Your task to perform on an android device: change the upload size in google photos Image 0: 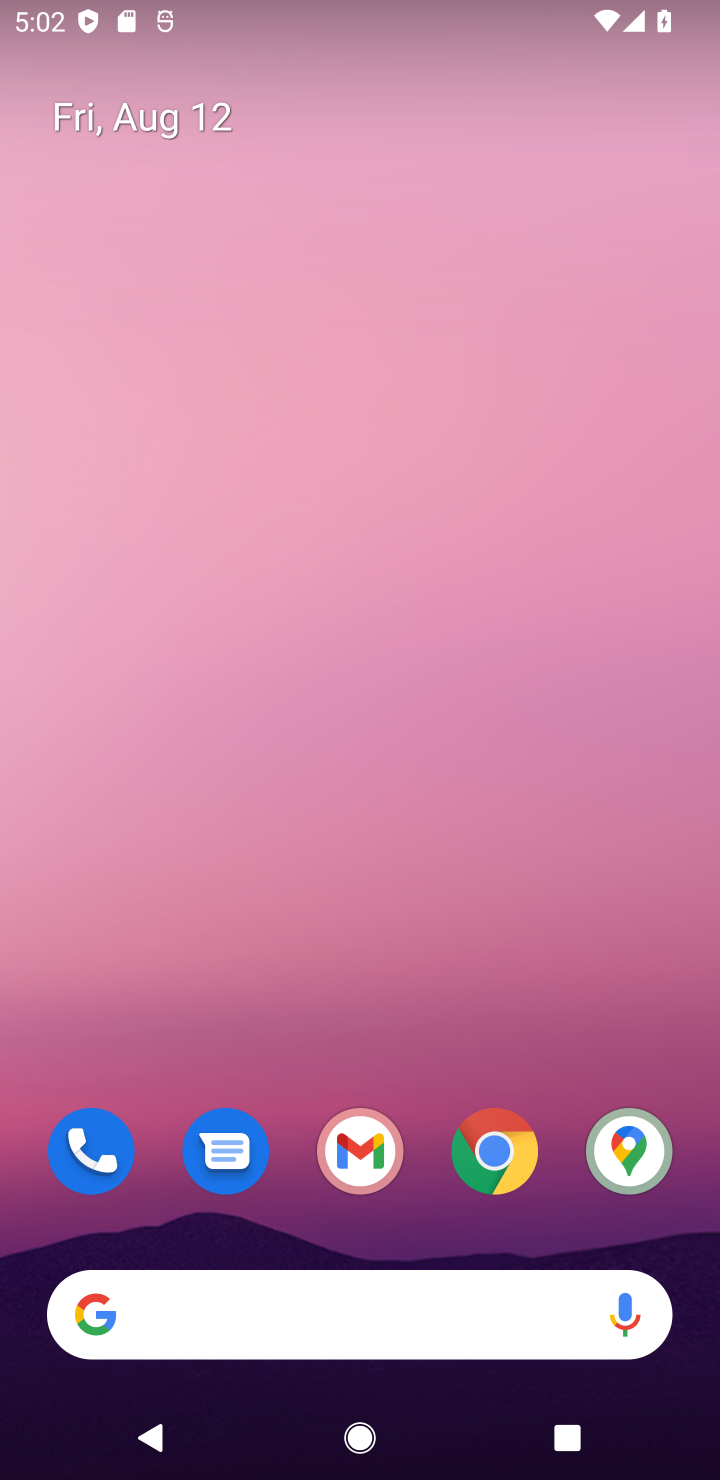
Step 0: drag from (439, 756) to (426, 223)
Your task to perform on an android device: change the upload size in google photos Image 1: 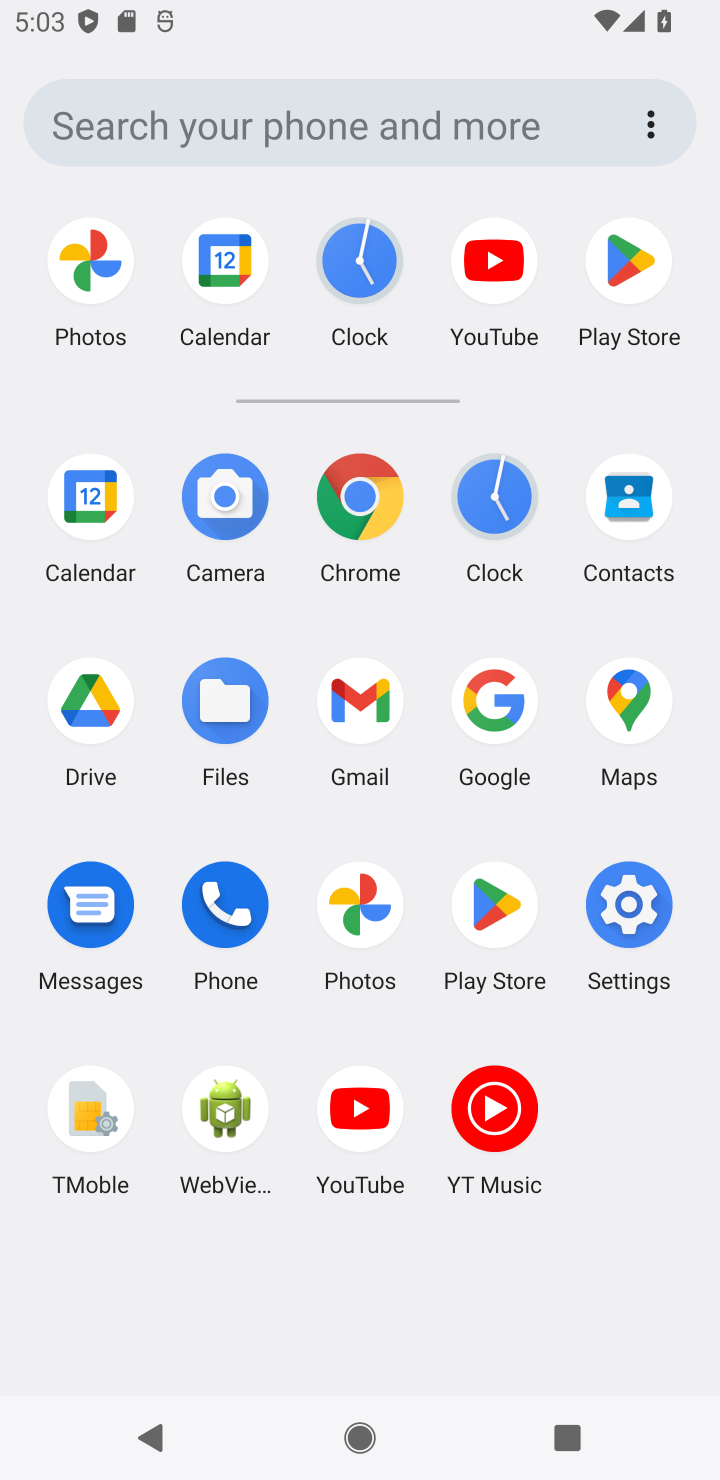
Step 1: click (368, 897)
Your task to perform on an android device: change the upload size in google photos Image 2: 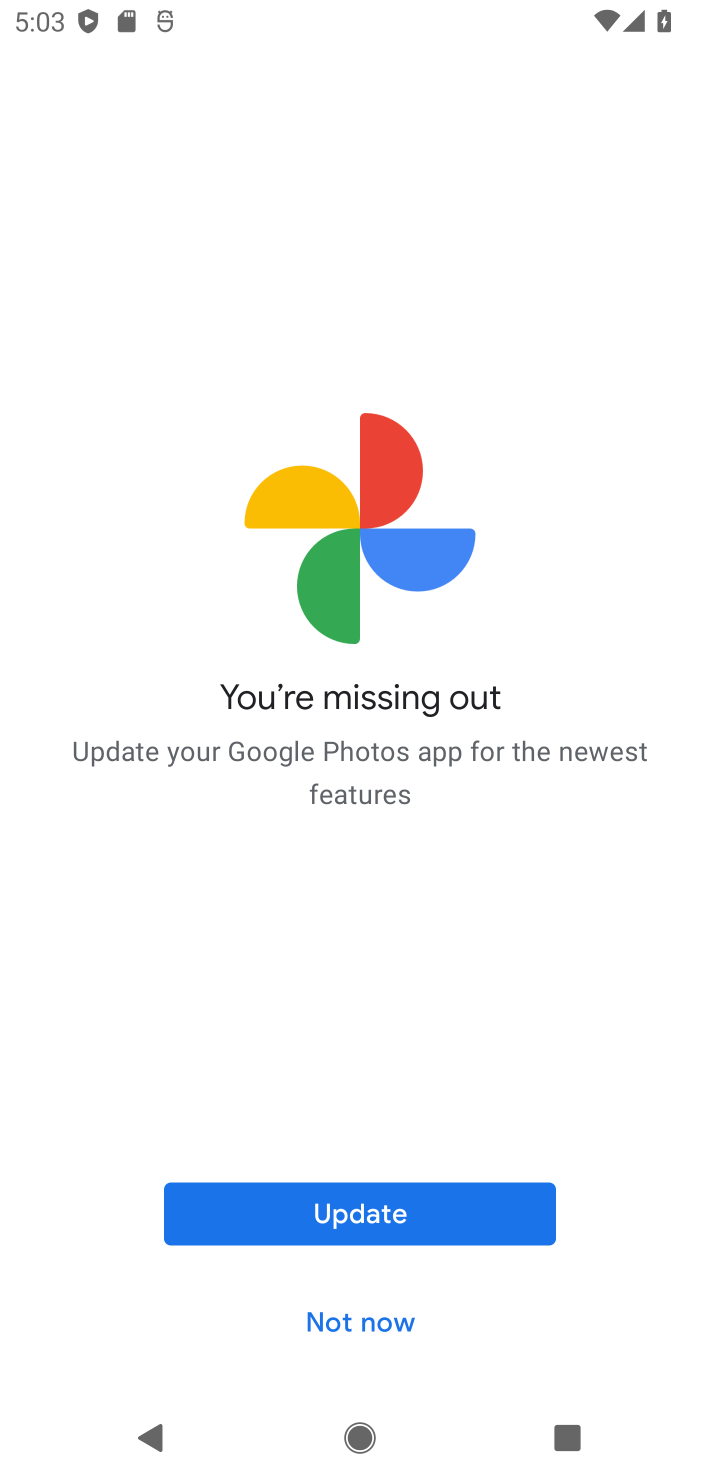
Step 2: click (364, 1327)
Your task to perform on an android device: change the upload size in google photos Image 3: 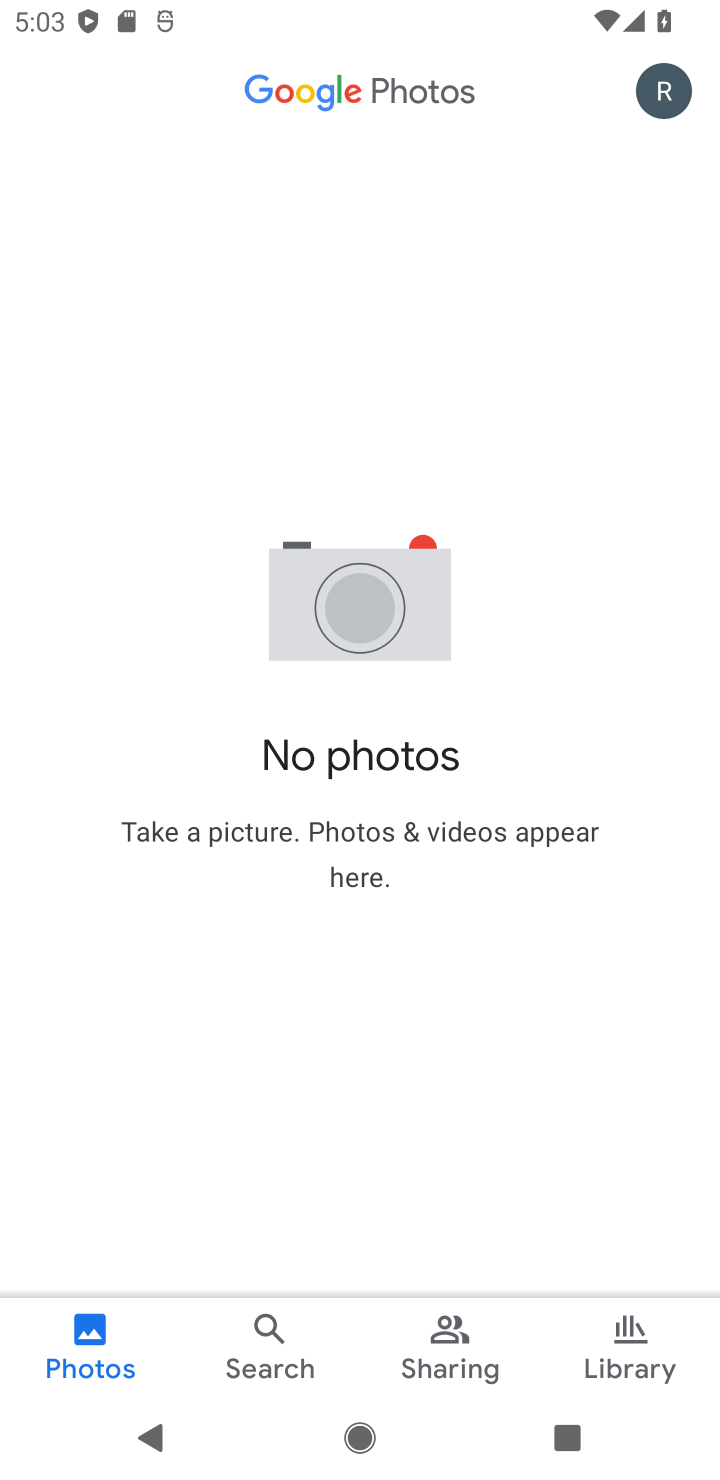
Step 3: click (673, 100)
Your task to perform on an android device: change the upload size in google photos Image 4: 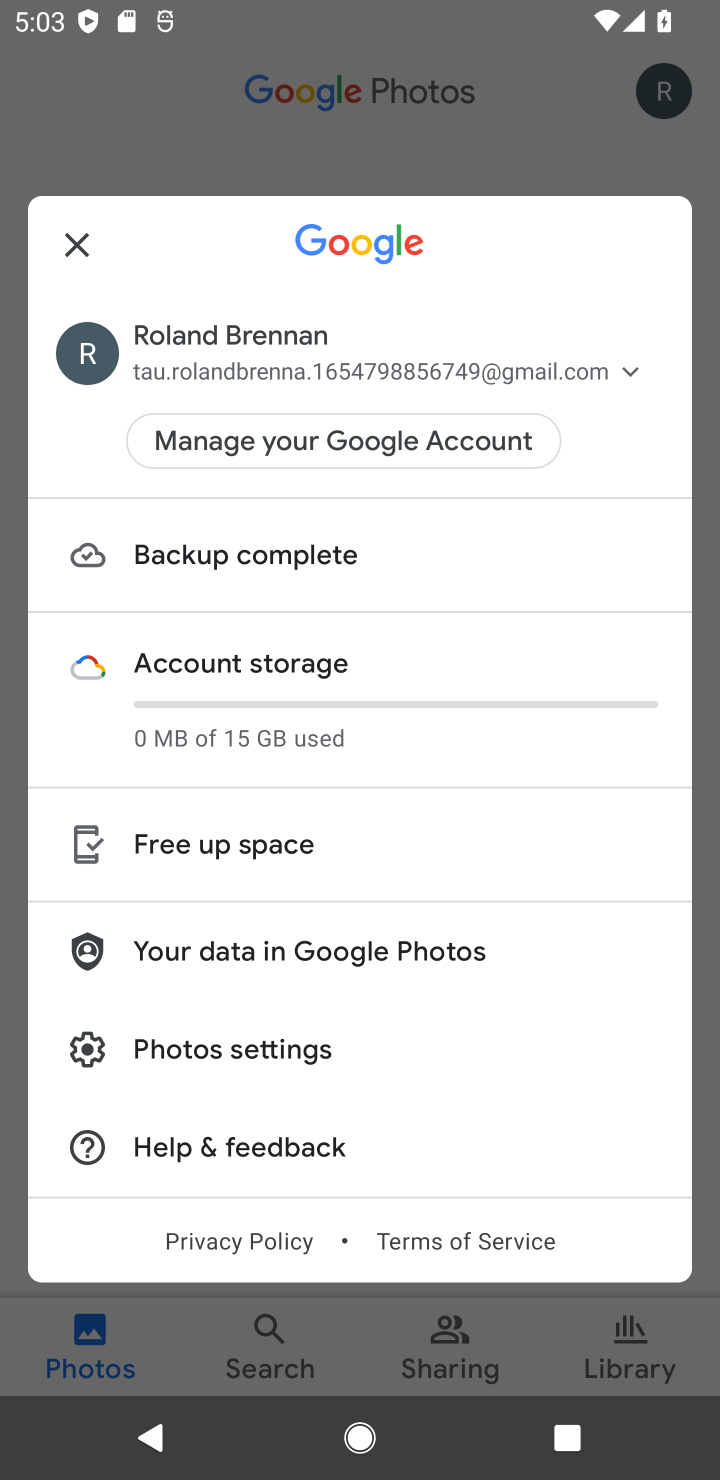
Step 4: click (296, 1064)
Your task to perform on an android device: change the upload size in google photos Image 5: 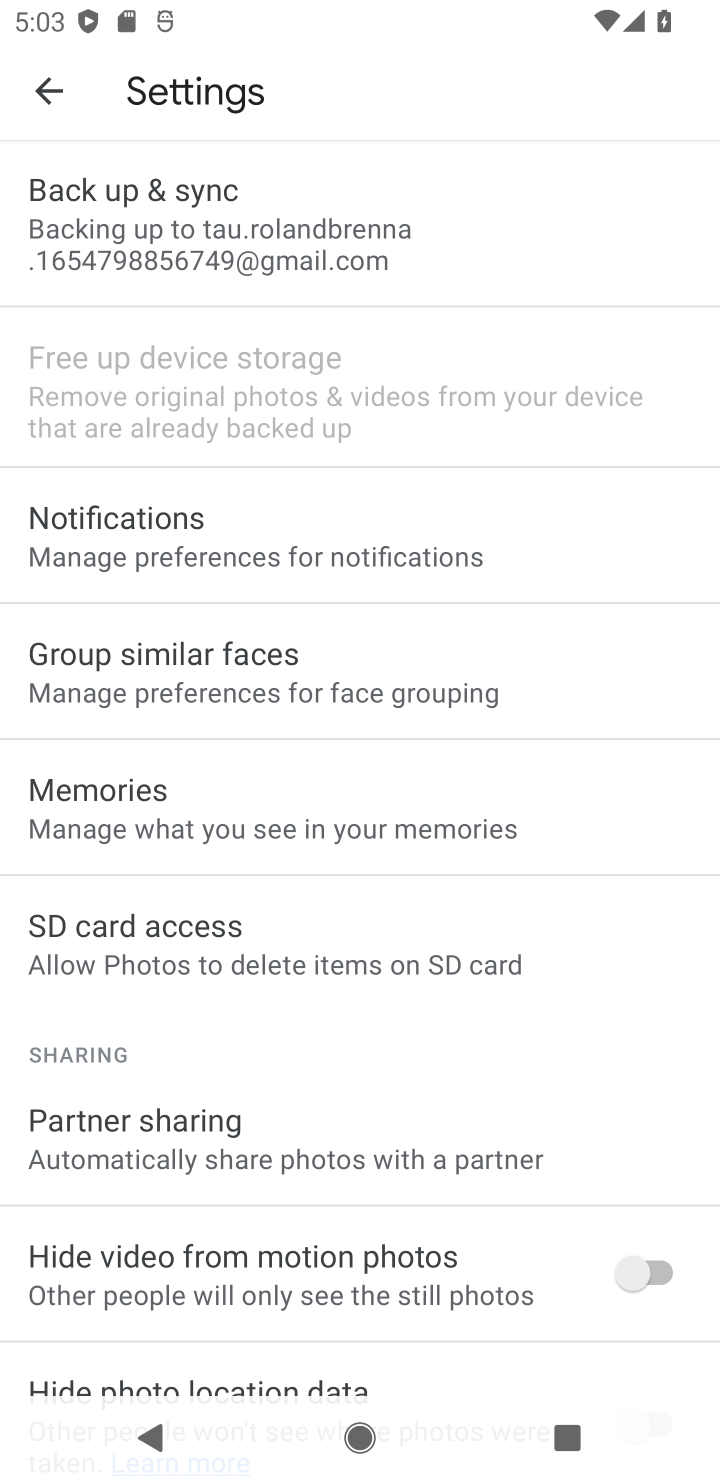
Step 5: click (273, 229)
Your task to perform on an android device: change the upload size in google photos Image 6: 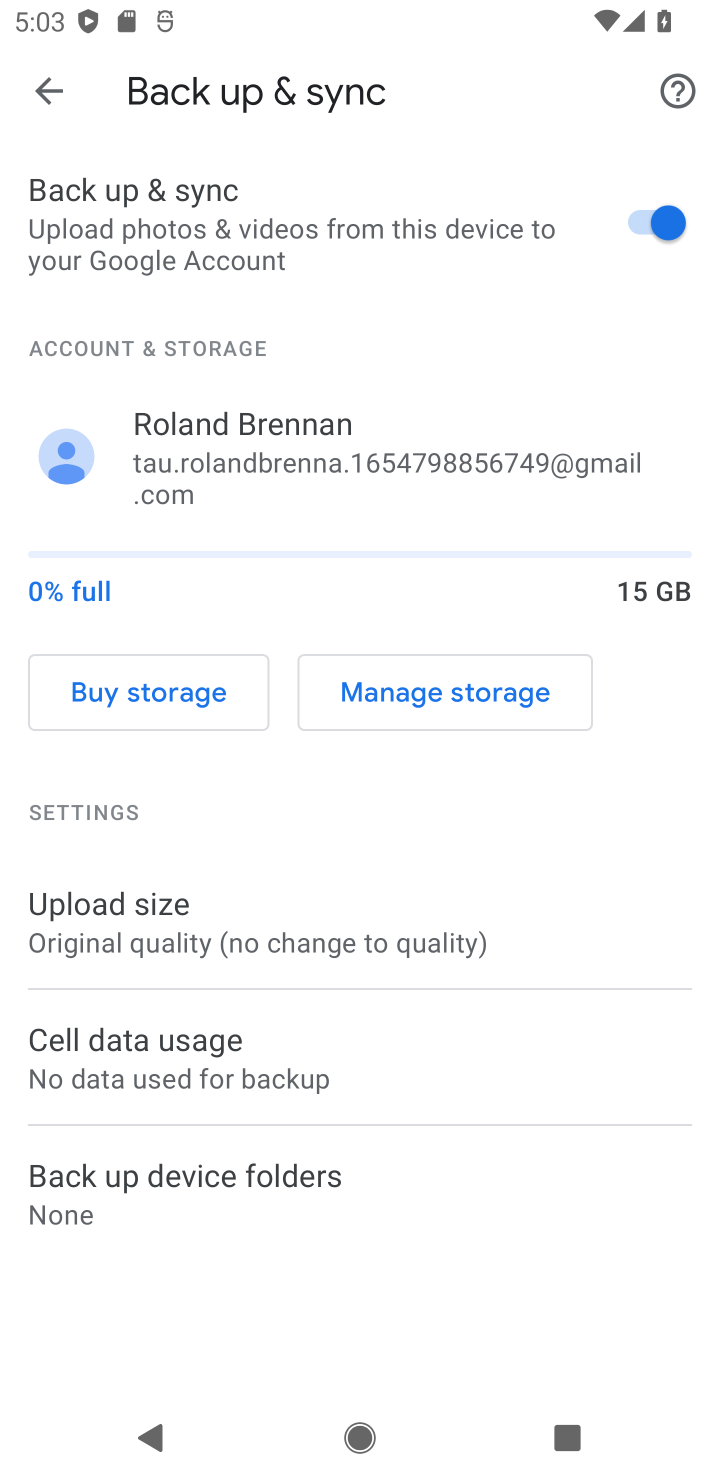
Step 6: click (274, 935)
Your task to perform on an android device: change the upload size in google photos Image 7: 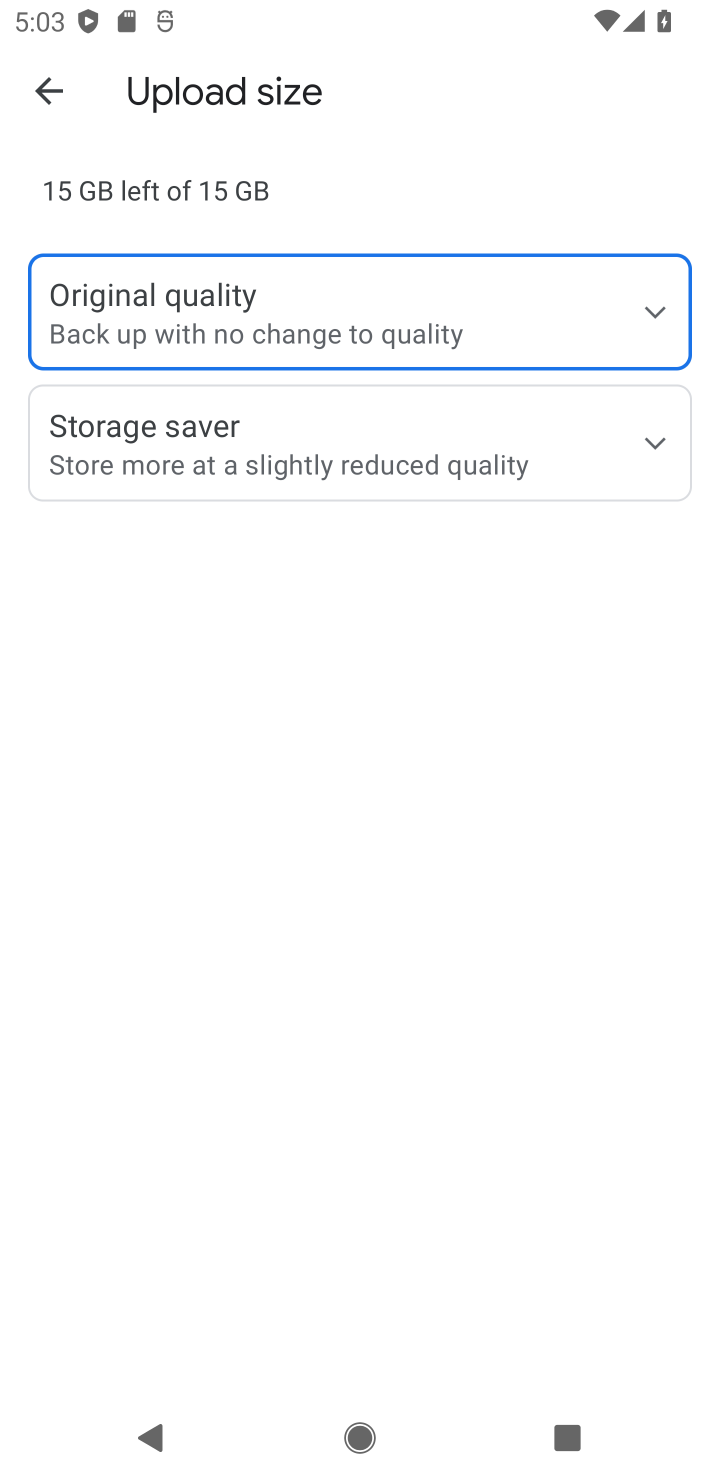
Step 7: click (330, 470)
Your task to perform on an android device: change the upload size in google photos Image 8: 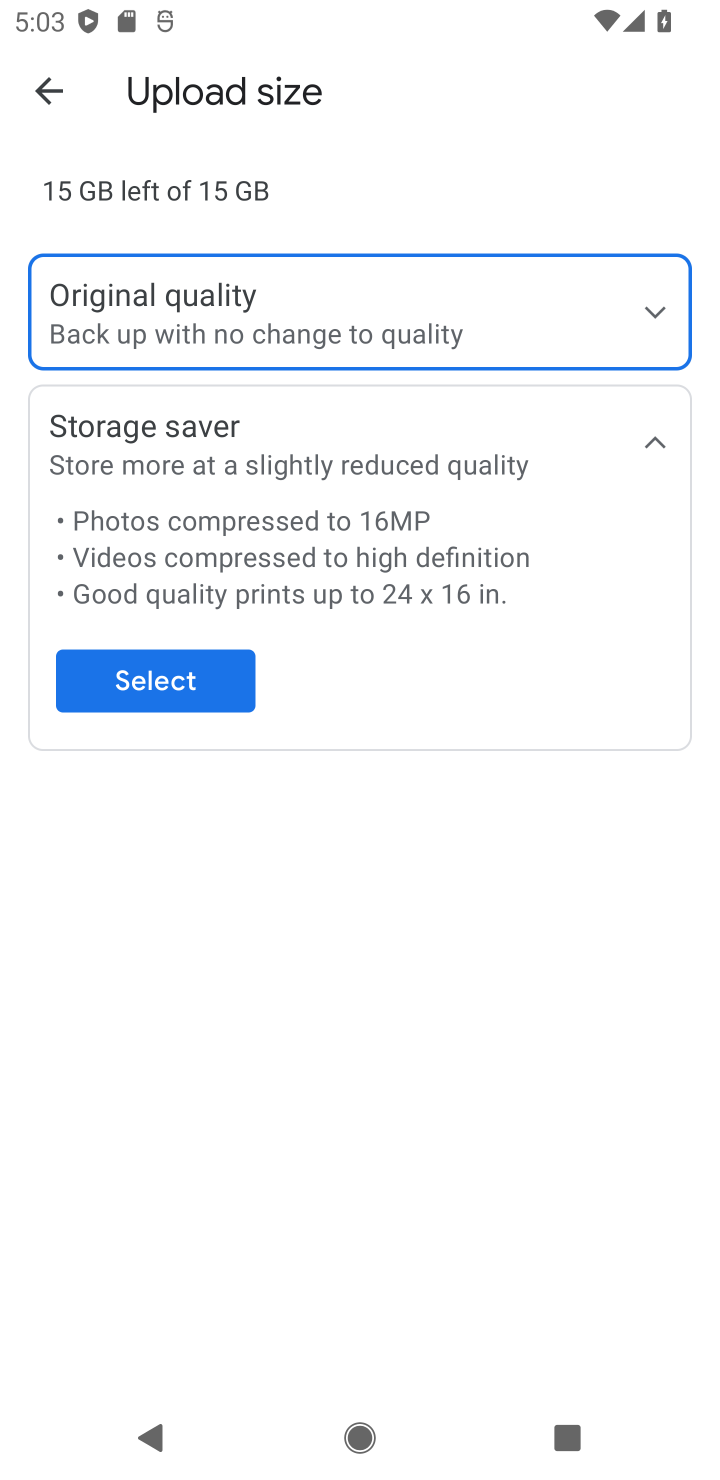
Step 8: click (177, 662)
Your task to perform on an android device: change the upload size in google photos Image 9: 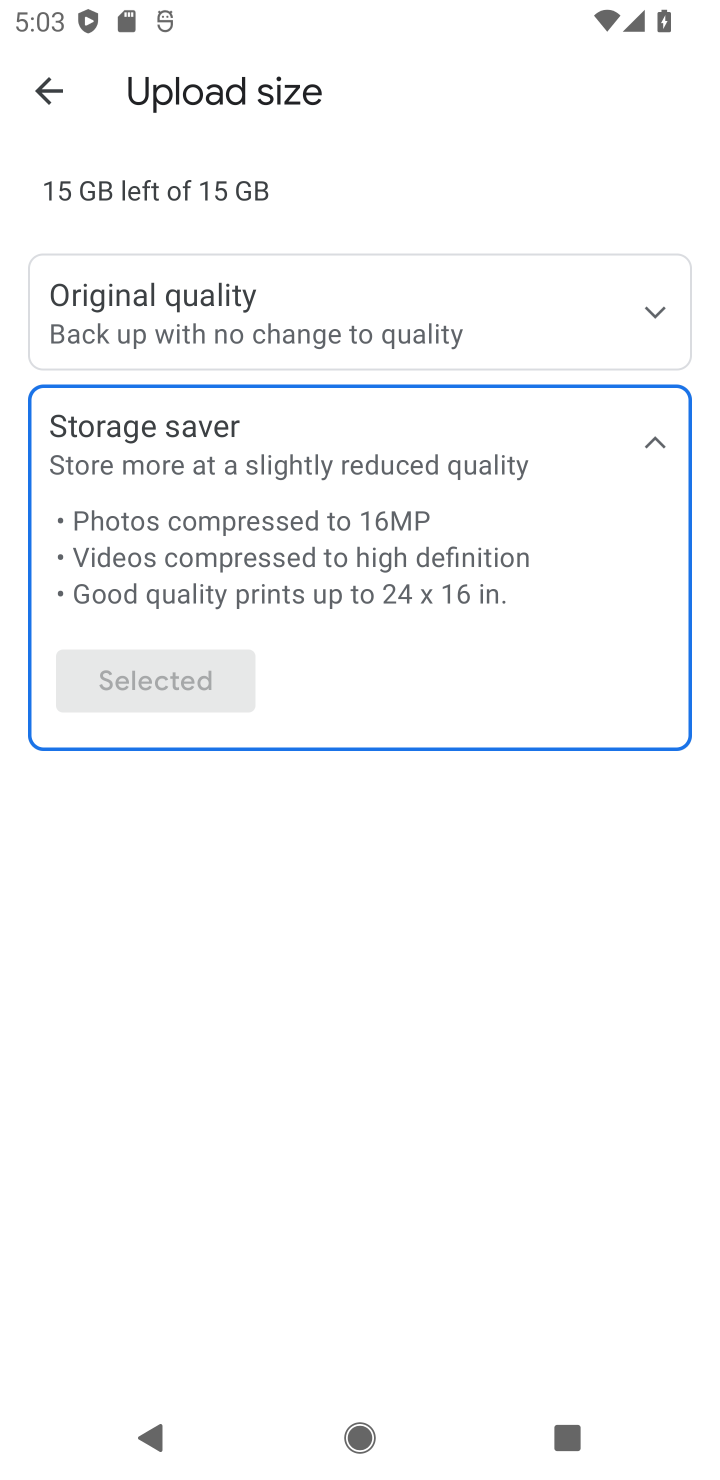
Step 9: task complete